Your task to perform on an android device: Open settings on Google Maps Image 0: 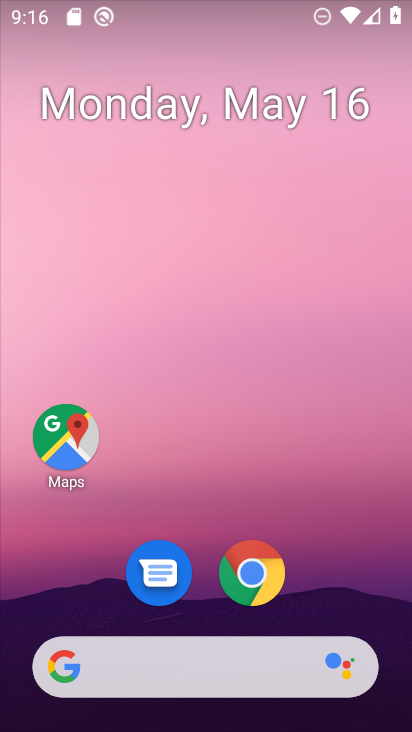
Step 0: click (72, 425)
Your task to perform on an android device: Open settings on Google Maps Image 1: 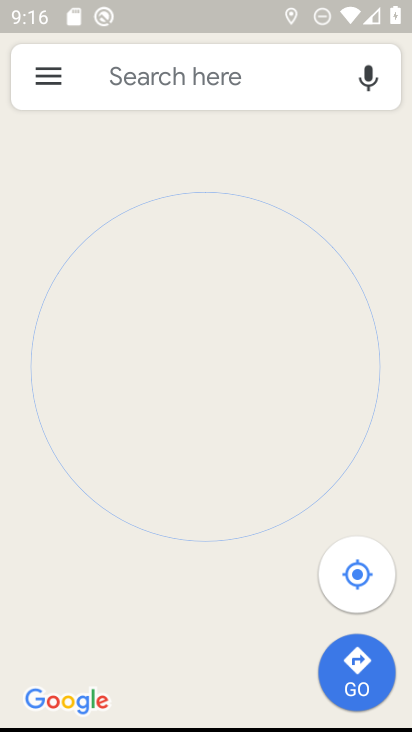
Step 1: click (47, 62)
Your task to perform on an android device: Open settings on Google Maps Image 2: 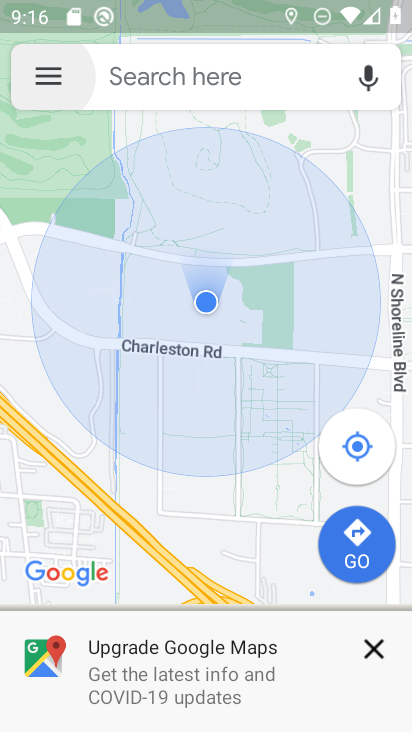
Step 2: click (42, 82)
Your task to perform on an android device: Open settings on Google Maps Image 3: 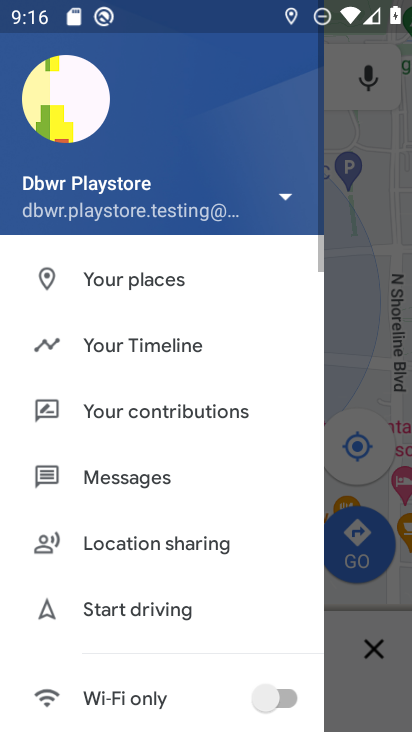
Step 3: drag from (130, 678) to (244, 233)
Your task to perform on an android device: Open settings on Google Maps Image 4: 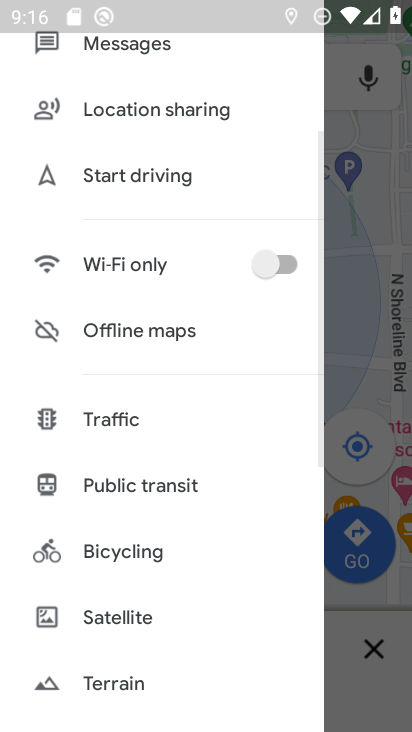
Step 4: drag from (184, 646) to (256, 275)
Your task to perform on an android device: Open settings on Google Maps Image 5: 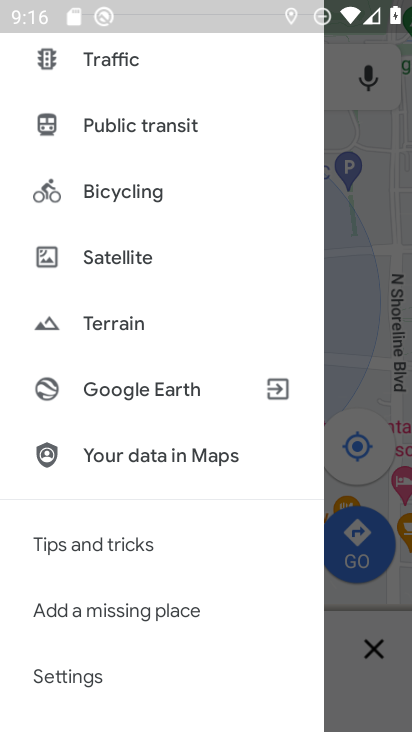
Step 5: click (85, 676)
Your task to perform on an android device: Open settings on Google Maps Image 6: 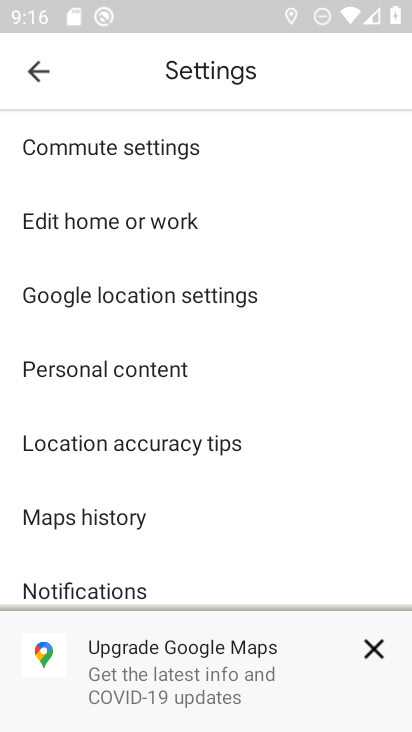
Step 6: task complete